Your task to perform on an android device: What is the recent news? Image 0: 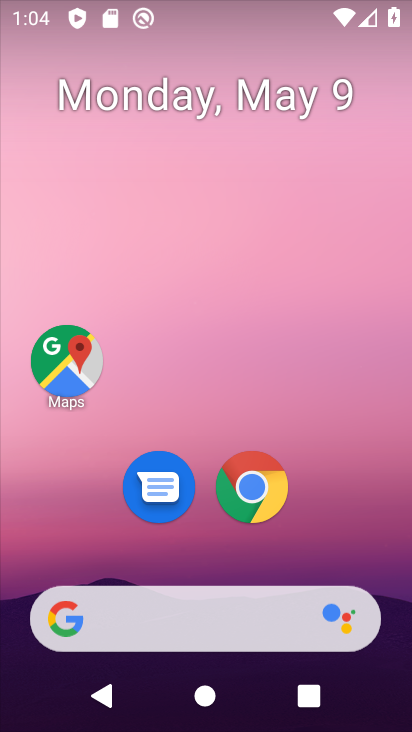
Step 0: drag from (171, 578) to (218, 198)
Your task to perform on an android device: What is the recent news? Image 1: 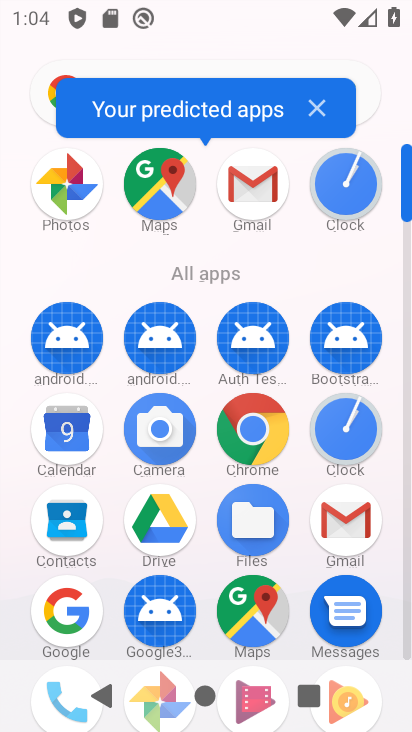
Step 1: click (58, 619)
Your task to perform on an android device: What is the recent news? Image 2: 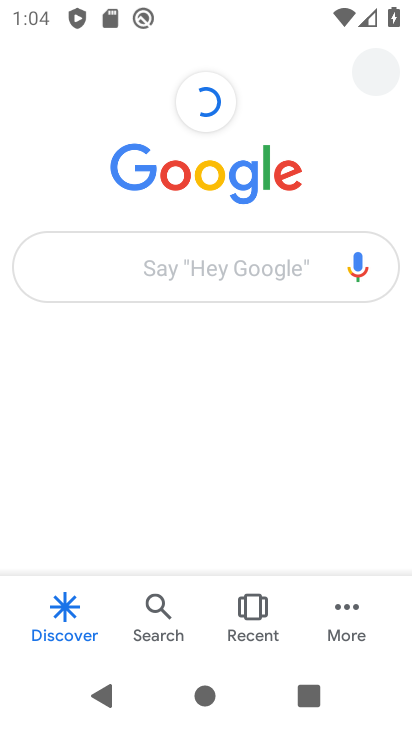
Step 2: click (154, 264)
Your task to perform on an android device: What is the recent news? Image 3: 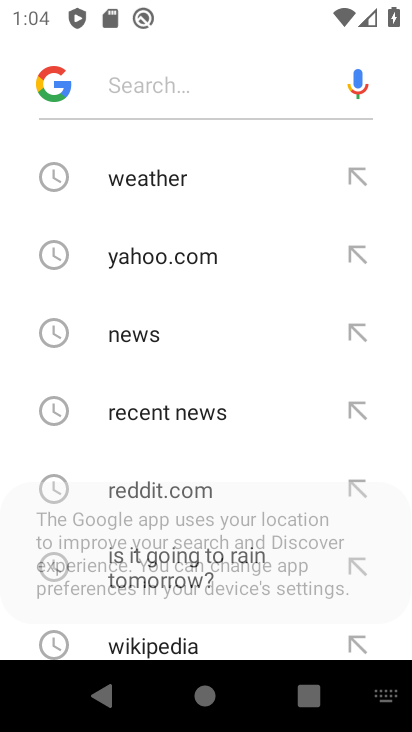
Step 3: click (161, 419)
Your task to perform on an android device: What is the recent news? Image 4: 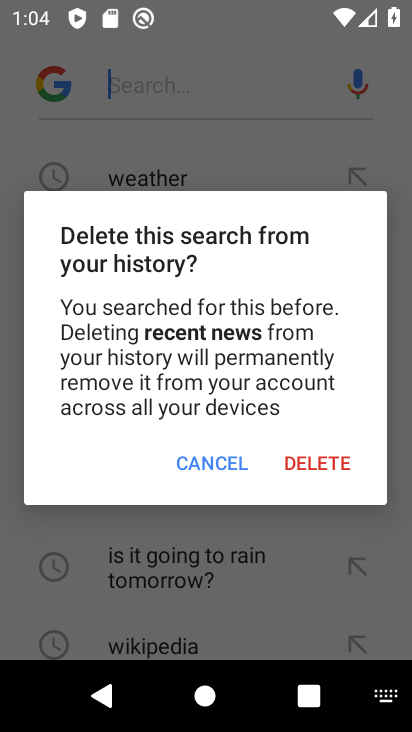
Step 4: click (207, 457)
Your task to perform on an android device: What is the recent news? Image 5: 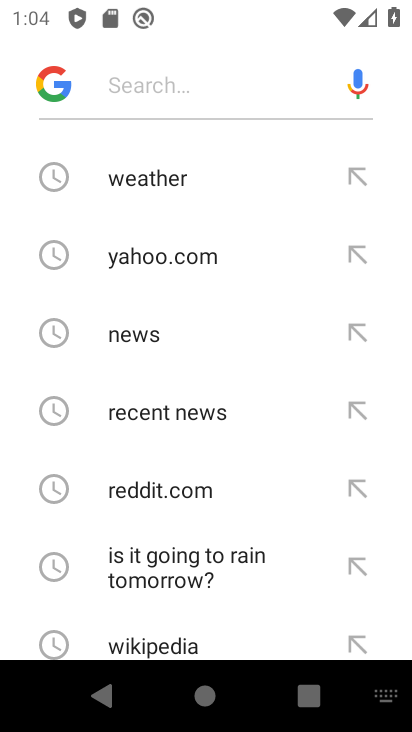
Step 5: click (174, 415)
Your task to perform on an android device: What is the recent news? Image 6: 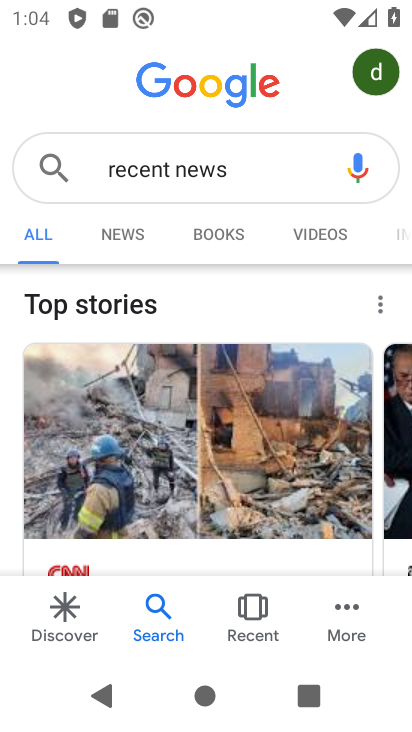
Step 6: click (192, 187)
Your task to perform on an android device: What is the recent news? Image 7: 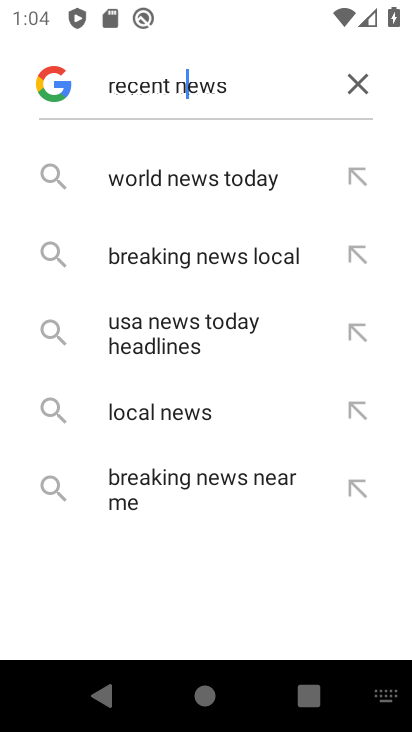
Step 7: click (231, 176)
Your task to perform on an android device: What is the recent news? Image 8: 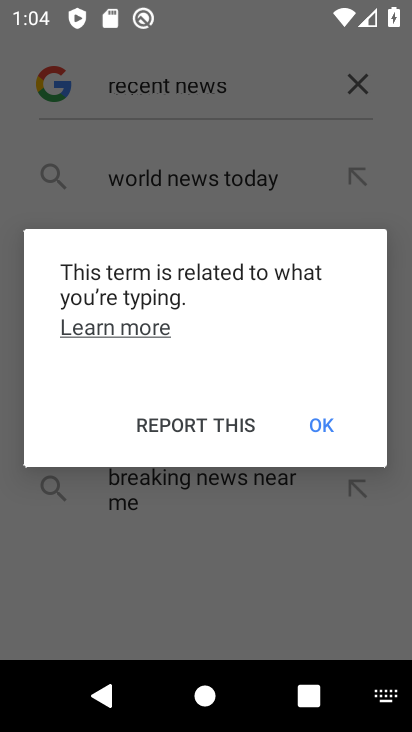
Step 8: click (319, 425)
Your task to perform on an android device: What is the recent news? Image 9: 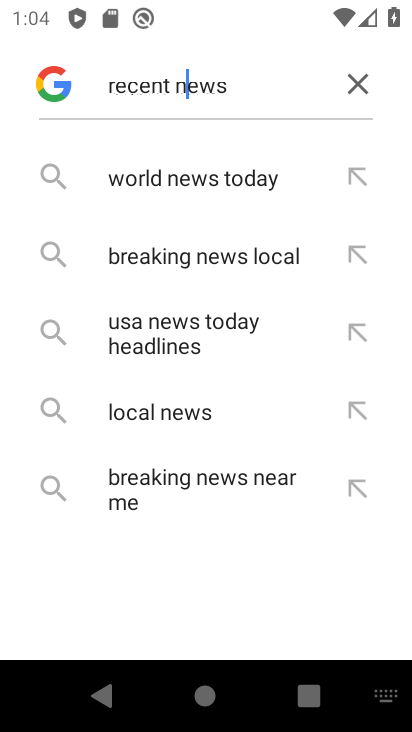
Step 9: click (172, 185)
Your task to perform on an android device: What is the recent news? Image 10: 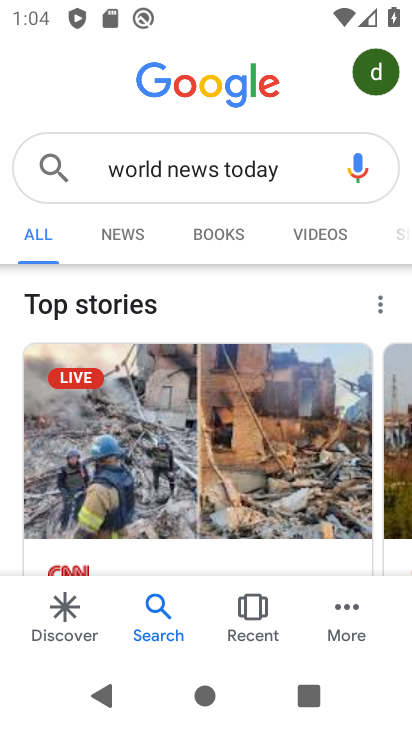
Step 10: task complete